Your task to perform on an android device: toggle priority inbox in the gmail app Image 0: 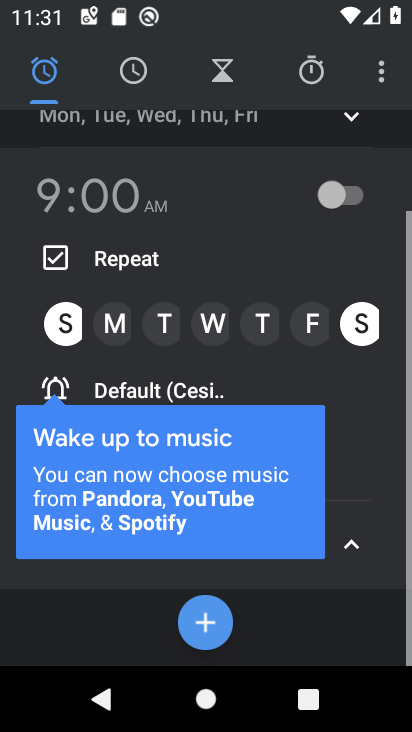
Step 0: drag from (249, 714) to (229, 385)
Your task to perform on an android device: toggle priority inbox in the gmail app Image 1: 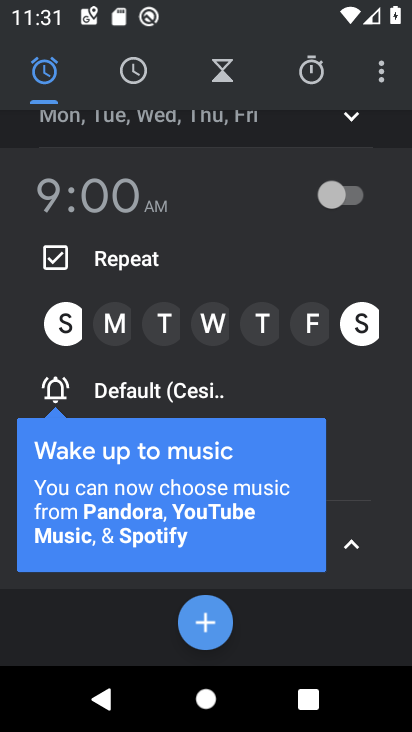
Step 1: press back button
Your task to perform on an android device: toggle priority inbox in the gmail app Image 2: 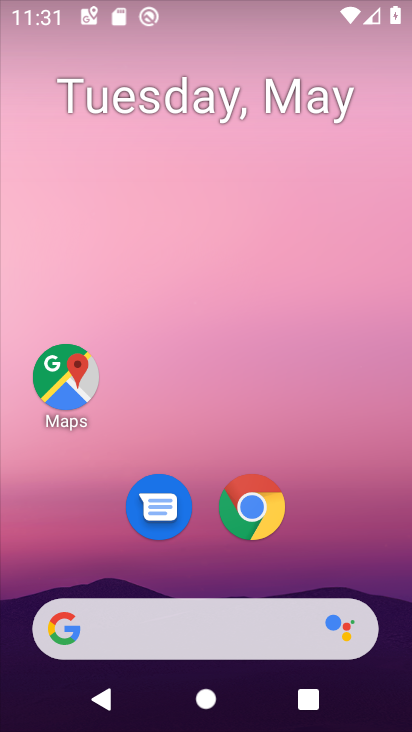
Step 2: drag from (263, 682) to (151, 180)
Your task to perform on an android device: toggle priority inbox in the gmail app Image 3: 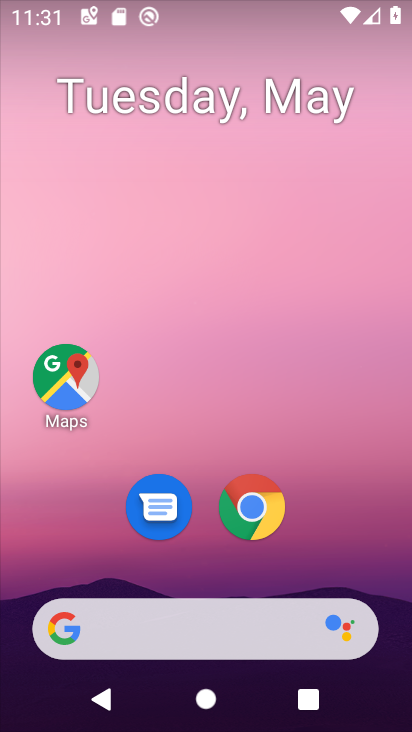
Step 3: drag from (256, 717) to (192, 284)
Your task to perform on an android device: toggle priority inbox in the gmail app Image 4: 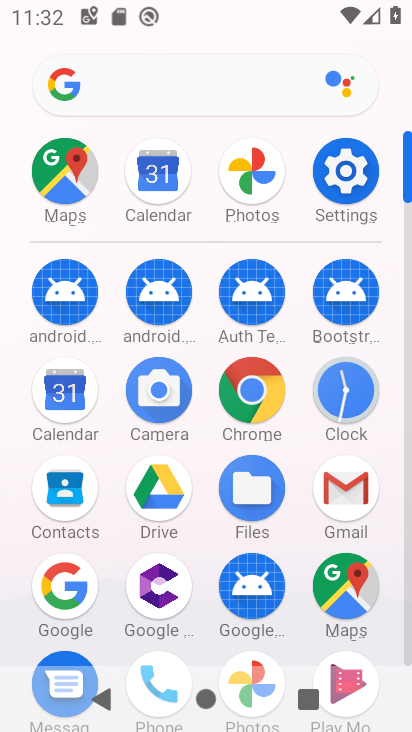
Step 4: click (349, 488)
Your task to perform on an android device: toggle priority inbox in the gmail app Image 5: 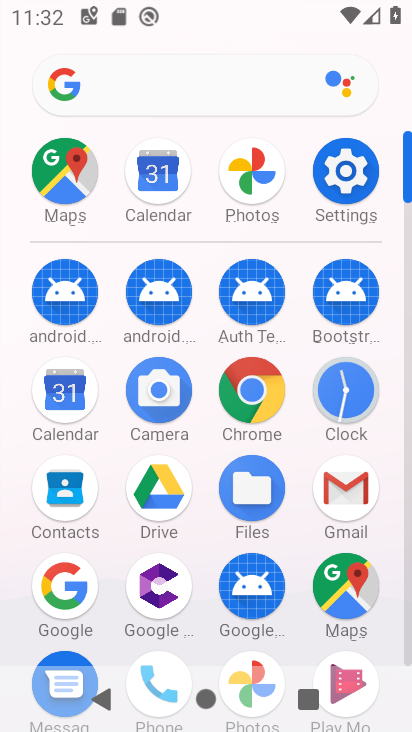
Step 5: click (349, 488)
Your task to perform on an android device: toggle priority inbox in the gmail app Image 6: 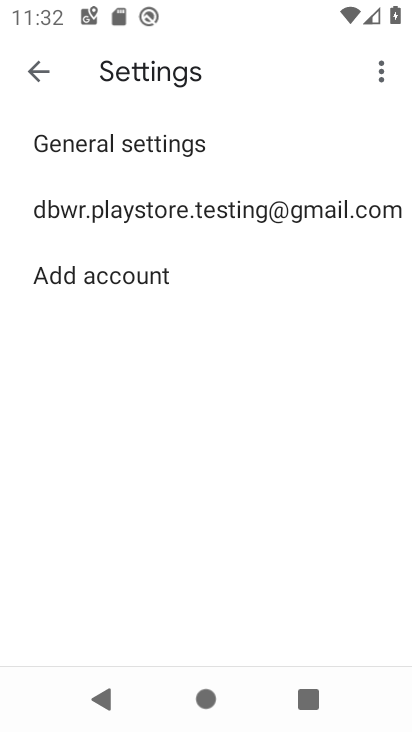
Step 6: click (350, 487)
Your task to perform on an android device: toggle priority inbox in the gmail app Image 7: 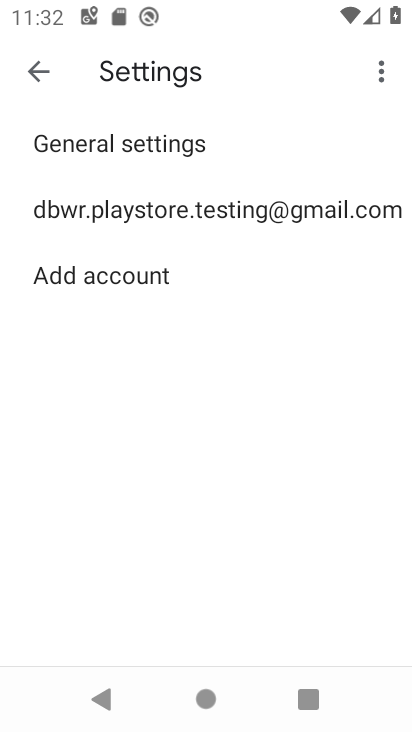
Step 7: click (194, 208)
Your task to perform on an android device: toggle priority inbox in the gmail app Image 8: 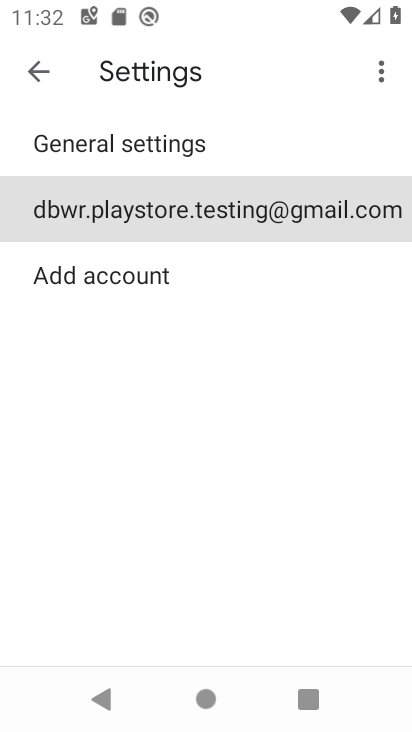
Step 8: click (194, 208)
Your task to perform on an android device: toggle priority inbox in the gmail app Image 9: 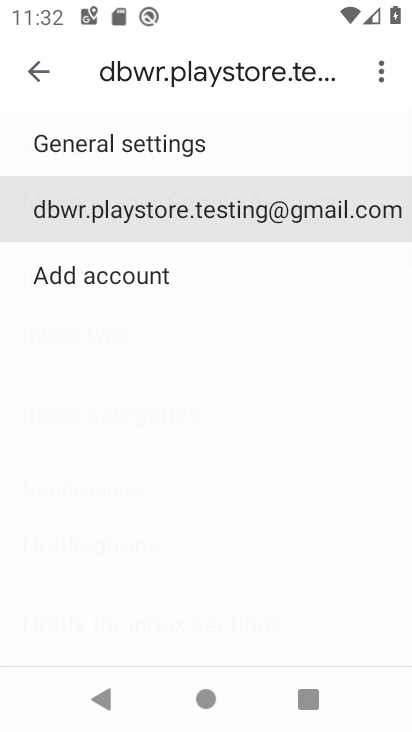
Step 9: click (194, 208)
Your task to perform on an android device: toggle priority inbox in the gmail app Image 10: 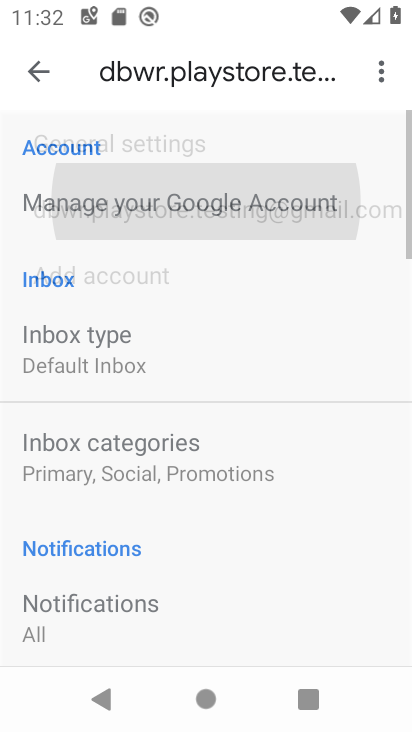
Step 10: click (197, 209)
Your task to perform on an android device: toggle priority inbox in the gmail app Image 11: 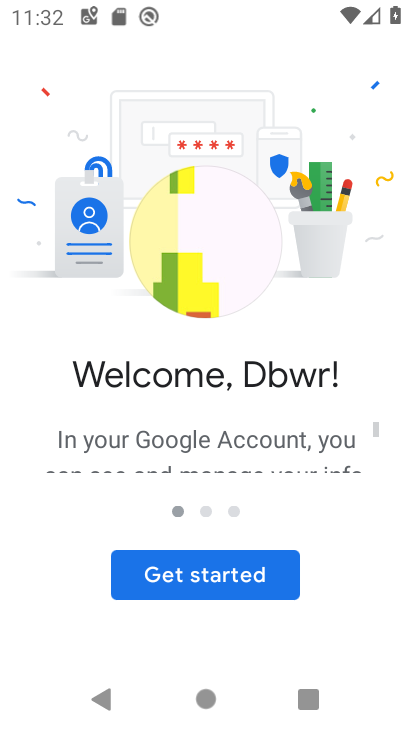
Step 11: click (207, 571)
Your task to perform on an android device: toggle priority inbox in the gmail app Image 12: 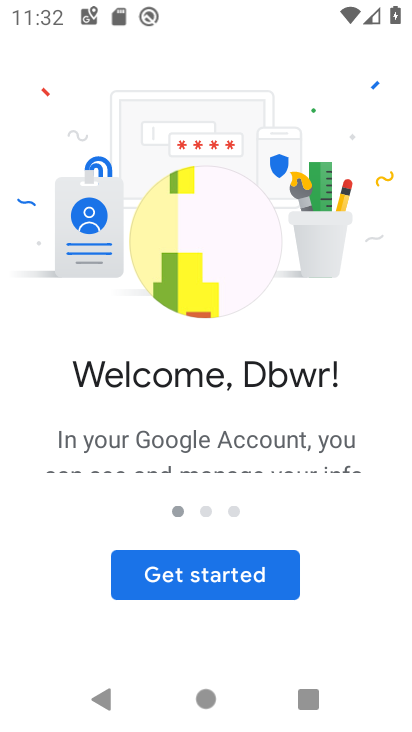
Step 12: click (205, 569)
Your task to perform on an android device: toggle priority inbox in the gmail app Image 13: 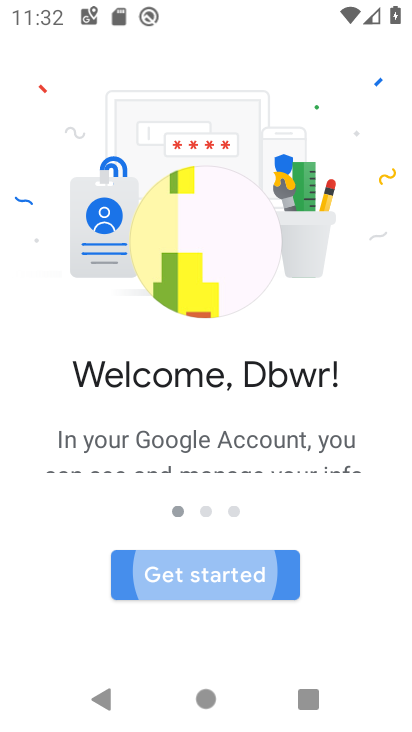
Step 13: click (205, 569)
Your task to perform on an android device: toggle priority inbox in the gmail app Image 14: 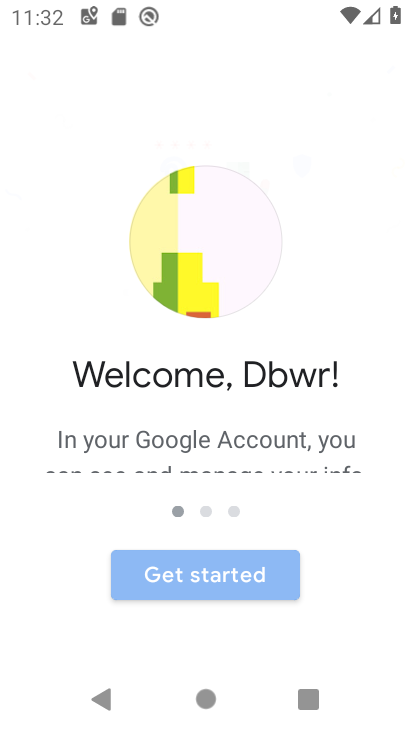
Step 14: click (206, 569)
Your task to perform on an android device: toggle priority inbox in the gmail app Image 15: 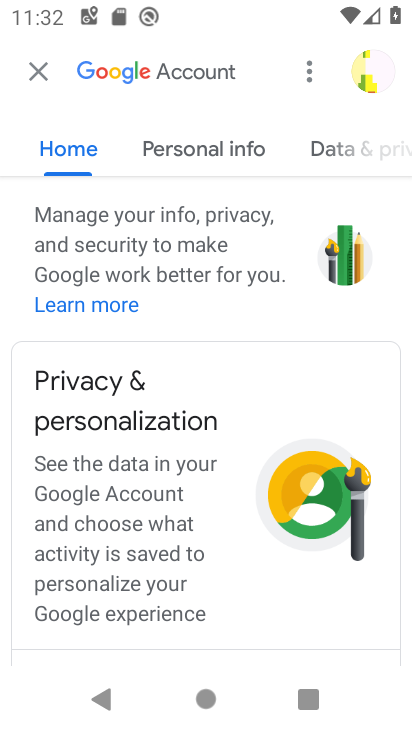
Step 15: click (30, 65)
Your task to perform on an android device: toggle priority inbox in the gmail app Image 16: 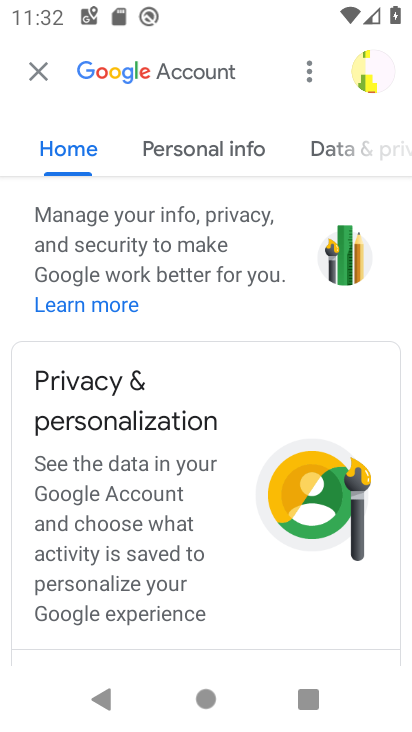
Step 16: click (42, 76)
Your task to perform on an android device: toggle priority inbox in the gmail app Image 17: 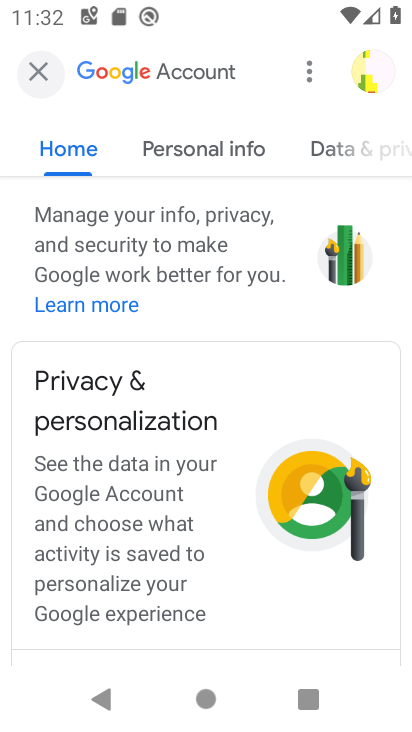
Step 17: click (41, 77)
Your task to perform on an android device: toggle priority inbox in the gmail app Image 18: 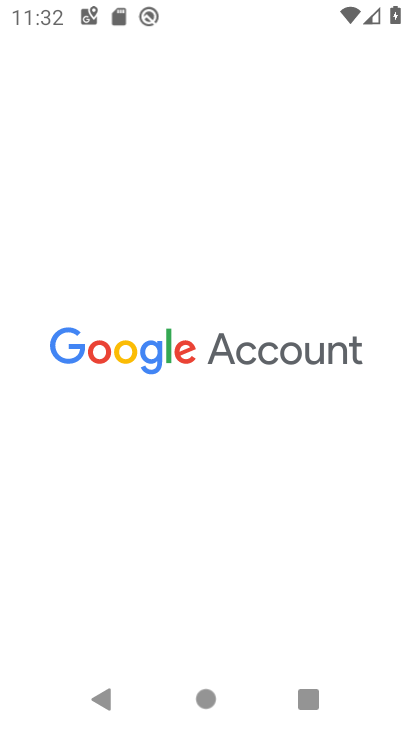
Step 18: click (41, 77)
Your task to perform on an android device: toggle priority inbox in the gmail app Image 19: 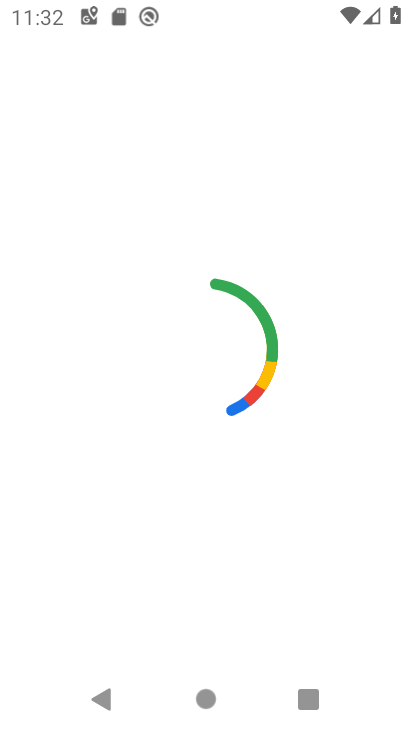
Step 19: press back button
Your task to perform on an android device: toggle priority inbox in the gmail app Image 20: 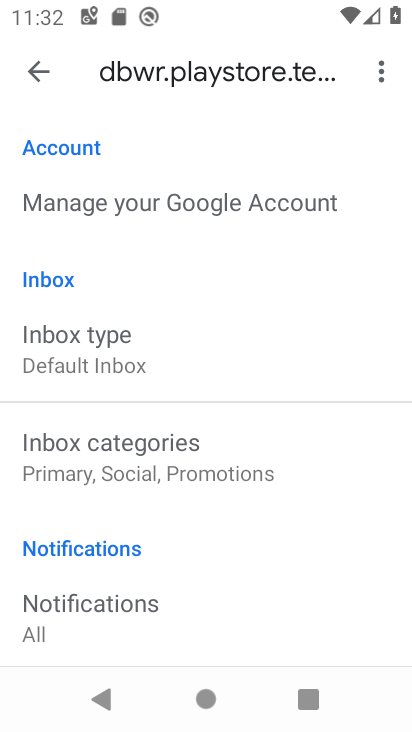
Step 20: drag from (185, 450) to (183, 173)
Your task to perform on an android device: toggle priority inbox in the gmail app Image 21: 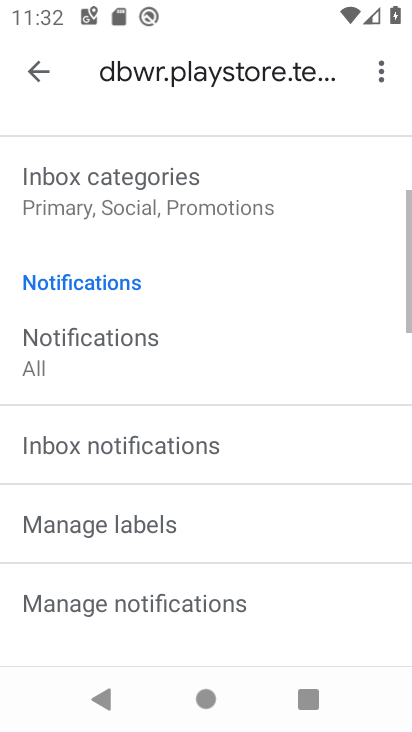
Step 21: drag from (245, 458) to (239, 62)
Your task to perform on an android device: toggle priority inbox in the gmail app Image 22: 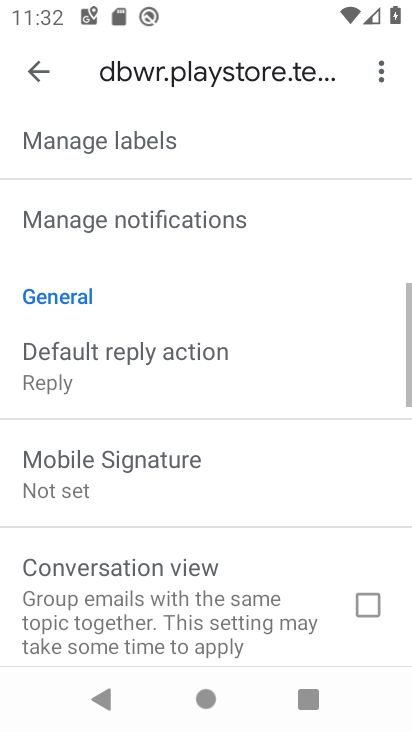
Step 22: drag from (265, 438) to (287, 56)
Your task to perform on an android device: toggle priority inbox in the gmail app Image 23: 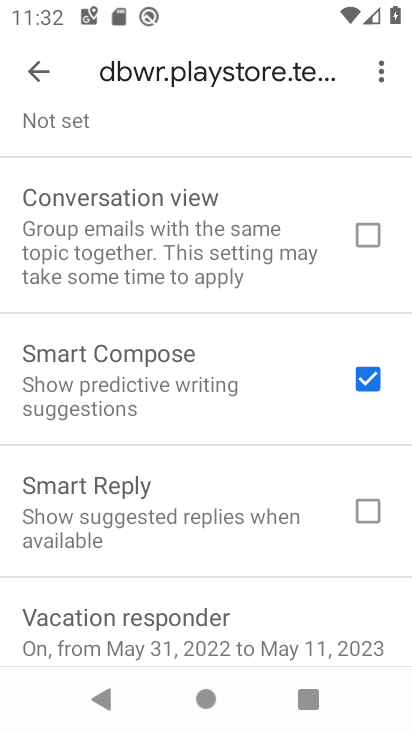
Step 23: drag from (143, 563) to (99, 80)
Your task to perform on an android device: toggle priority inbox in the gmail app Image 24: 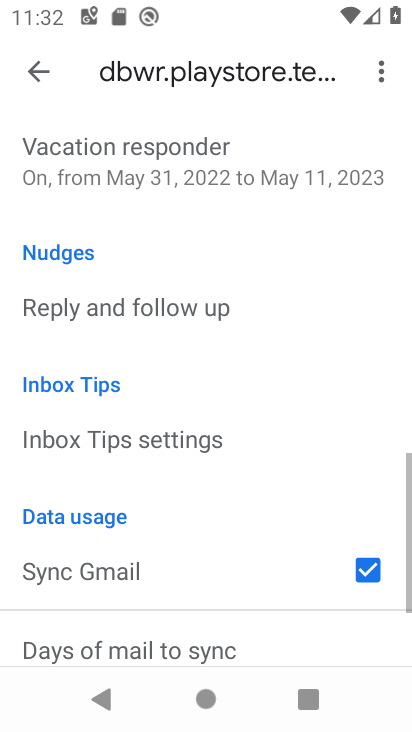
Step 24: drag from (138, 417) to (167, 107)
Your task to perform on an android device: toggle priority inbox in the gmail app Image 25: 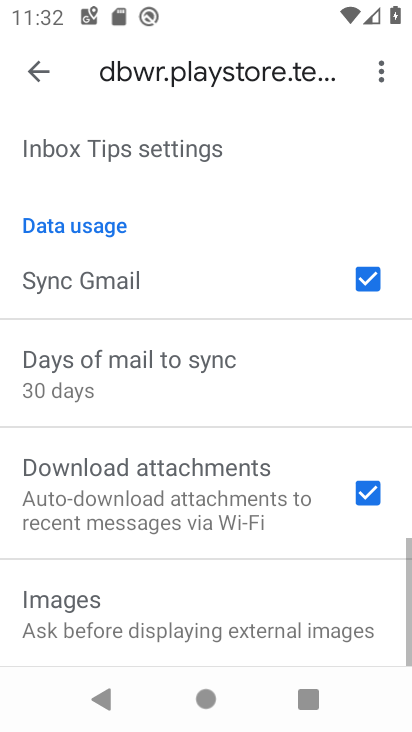
Step 25: drag from (175, 496) to (183, 65)
Your task to perform on an android device: toggle priority inbox in the gmail app Image 26: 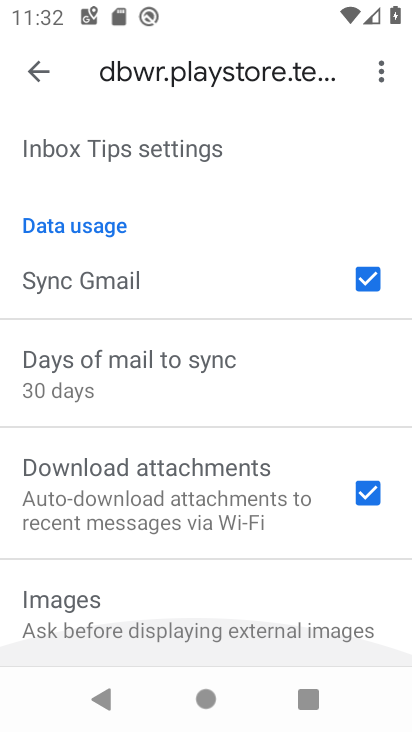
Step 26: drag from (187, 495) to (216, 139)
Your task to perform on an android device: toggle priority inbox in the gmail app Image 27: 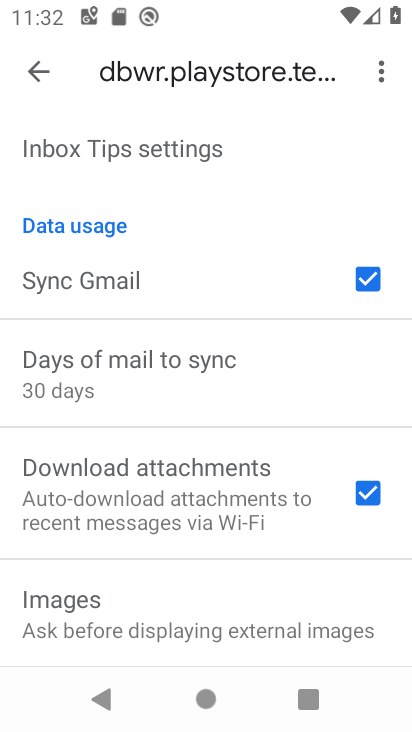
Step 27: drag from (136, 206) to (138, 524)
Your task to perform on an android device: toggle priority inbox in the gmail app Image 28: 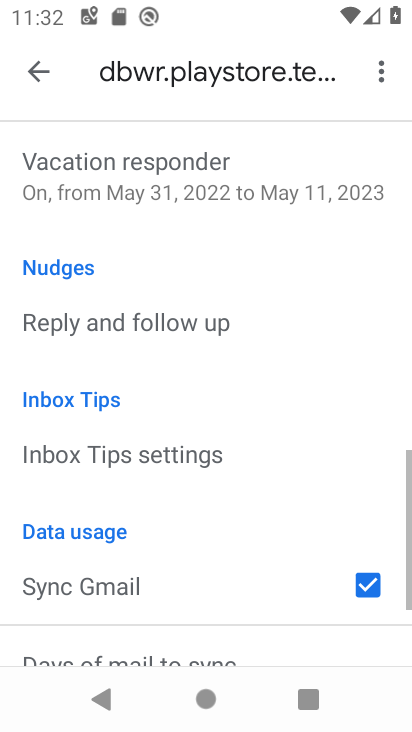
Step 28: drag from (138, 226) to (184, 542)
Your task to perform on an android device: toggle priority inbox in the gmail app Image 29: 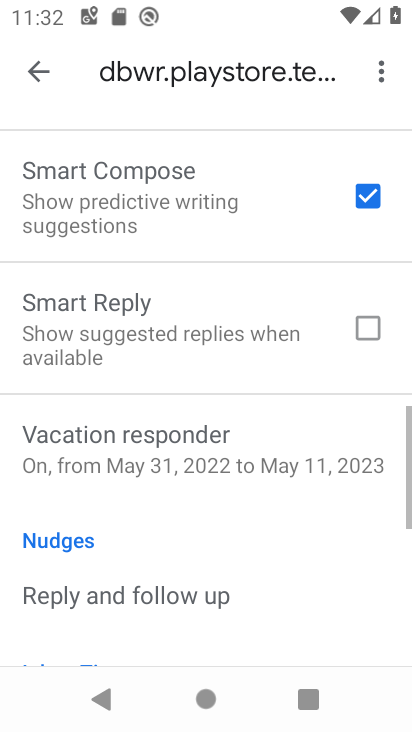
Step 29: drag from (124, 177) to (179, 617)
Your task to perform on an android device: toggle priority inbox in the gmail app Image 30: 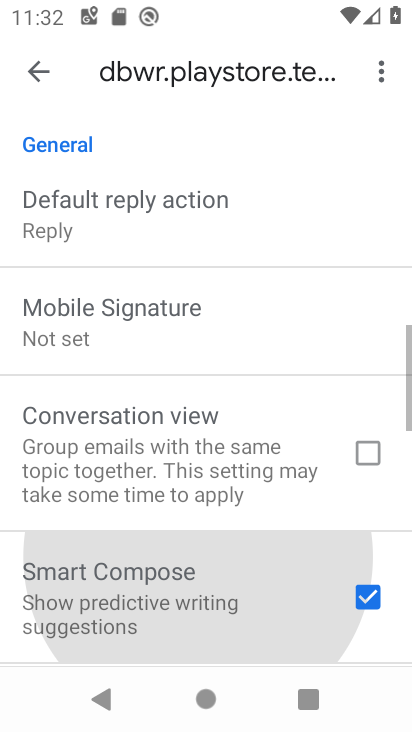
Step 30: drag from (140, 206) to (201, 612)
Your task to perform on an android device: toggle priority inbox in the gmail app Image 31: 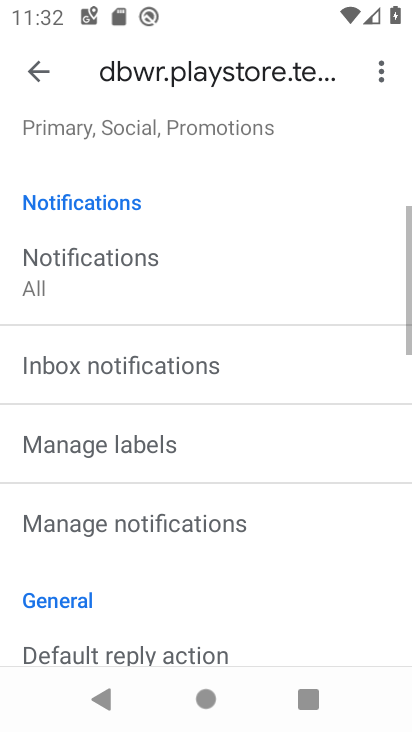
Step 31: drag from (121, 200) to (173, 514)
Your task to perform on an android device: toggle priority inbox in the gmail app Image 32: 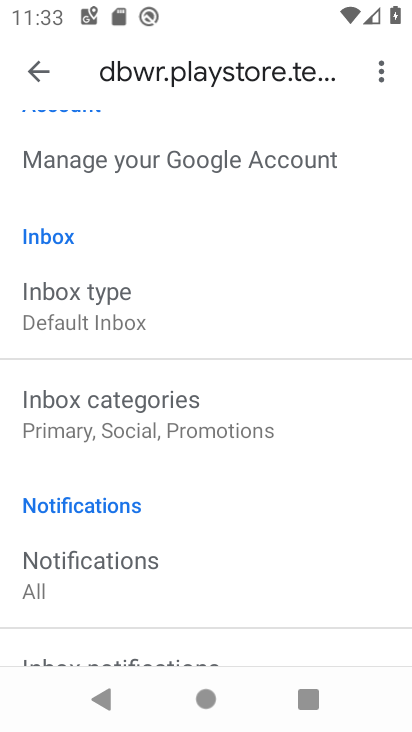
Step 32: click (74, 311)
Your task to perform on an android device: toggle priority inbox in the gmail app Image 33: 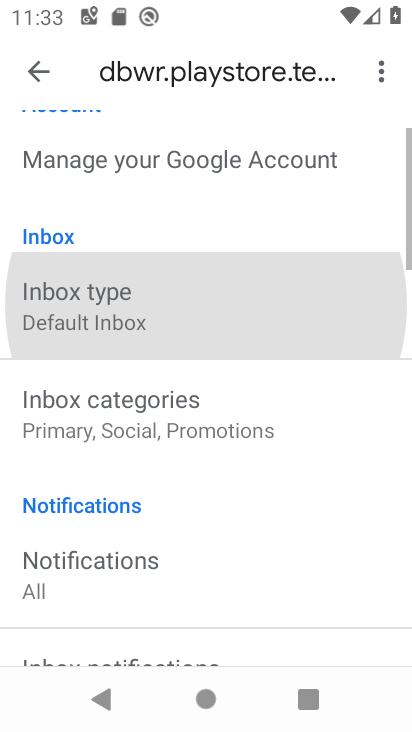
Step 33: click (74, 310)
Your task to perform on an android device: toggle priority inbox in the gmail app Image 34: 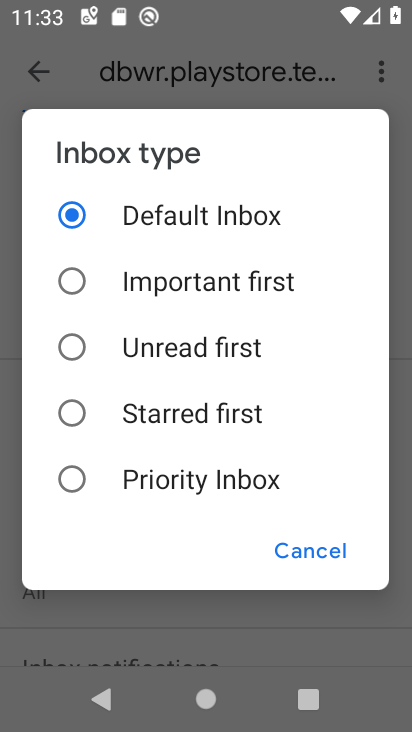
Step 34: click (63, 480)
Your task to perform on an android device: toggle priority inbox in the gmail app Image 35: 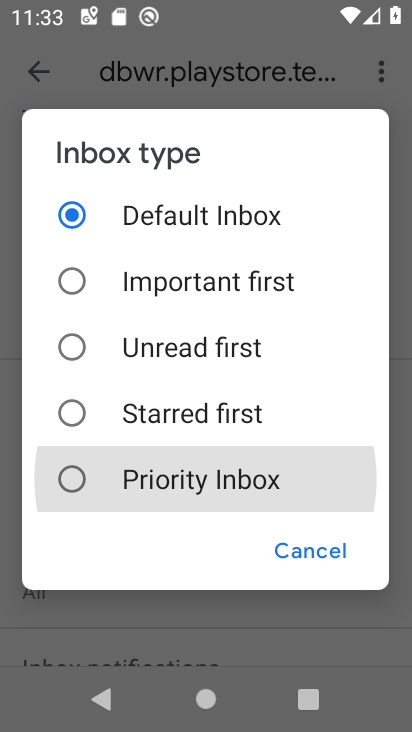
Step 35: click (71, 481)
Your task to perform on an android device: toggle priority inbox in the gmail app Image 36: 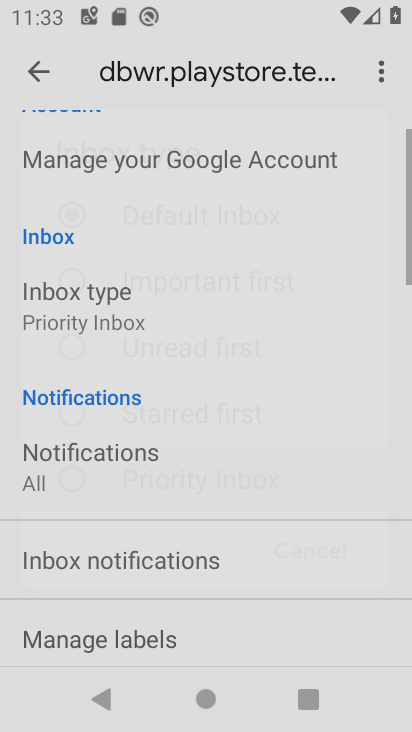
Step 36: click (71, 481)
Your task to perform on an android device: toggle priority inbox in the gmail app Image 37: 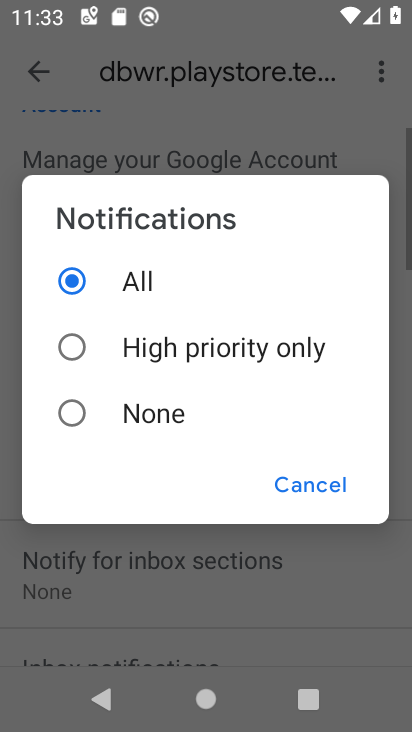
Step 37: click (305, 475)
Your task to perform on an android device: toggle priority inbox in the gmail app Image 38: 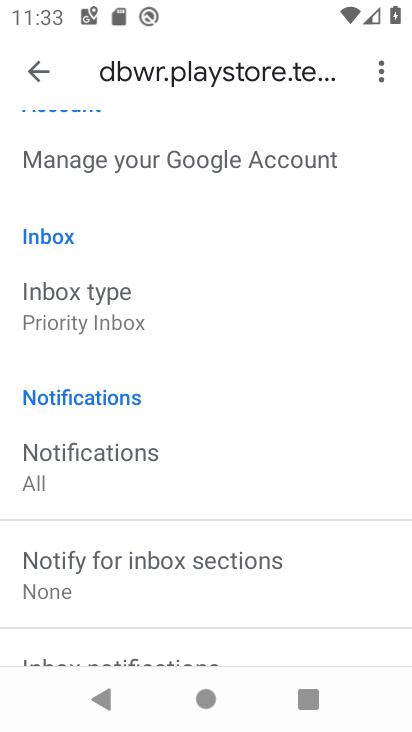
Step 38: task complete